Your task to perform on an android device: open app "Upside-Cash back on gas & food" (install if not already installed), go to login, and select forgot password Image 0: 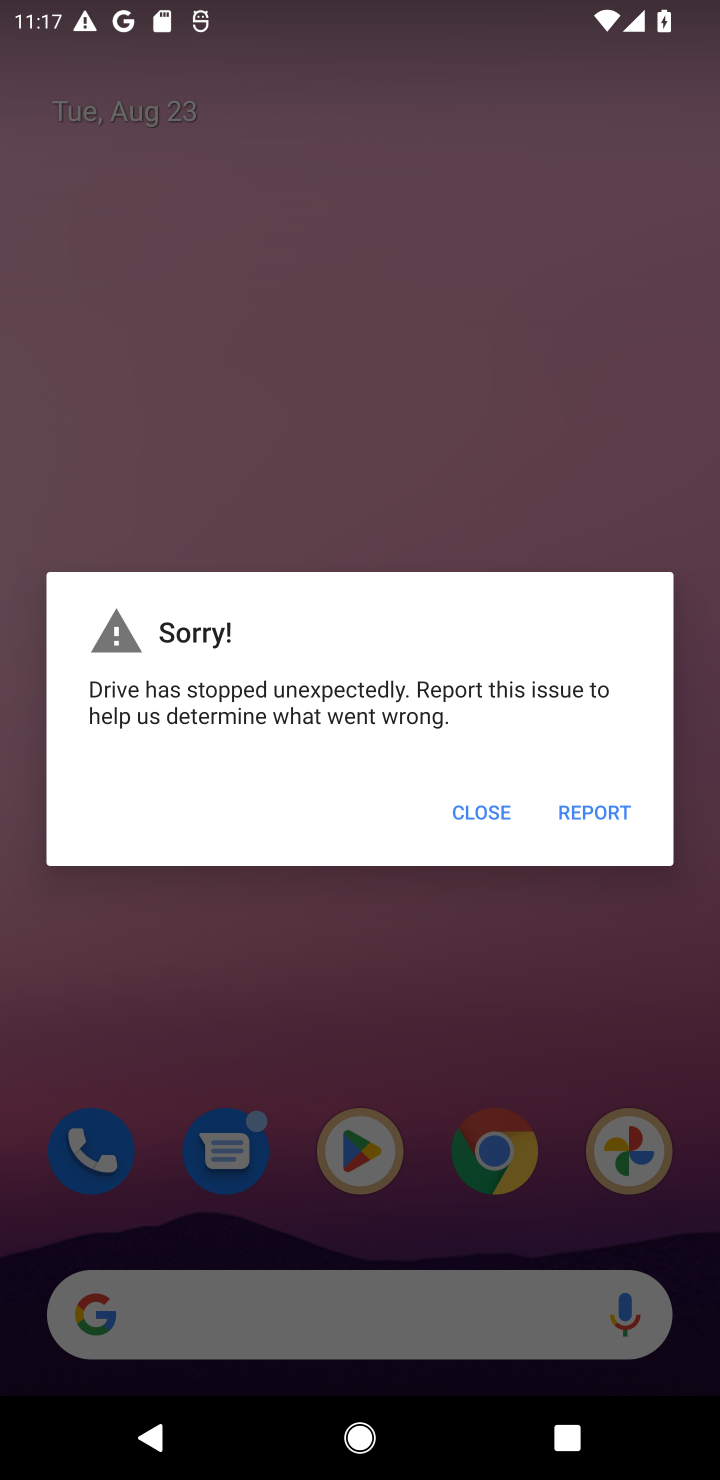
Step 0: click (457, 808)
Your task to perform on an android device: open app "Upside-Cash back on gas & food" (install if not already installed), go to login, and select forgot password Image 1: 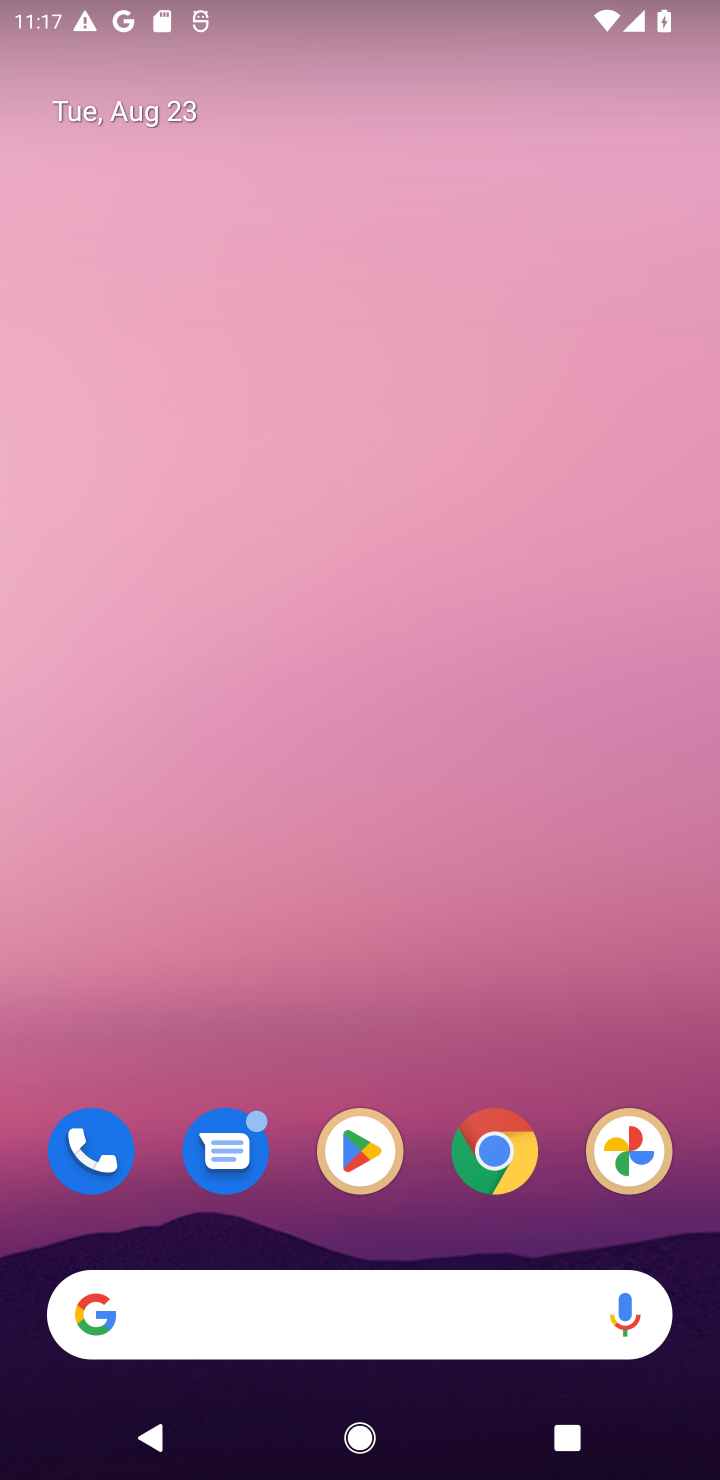
Step 1: click (356, 1171)
Your task to perform on an android device: open app "Upside-Cash back on gas & food" (install if not already installed), go to login, and select forgot password Image 2: 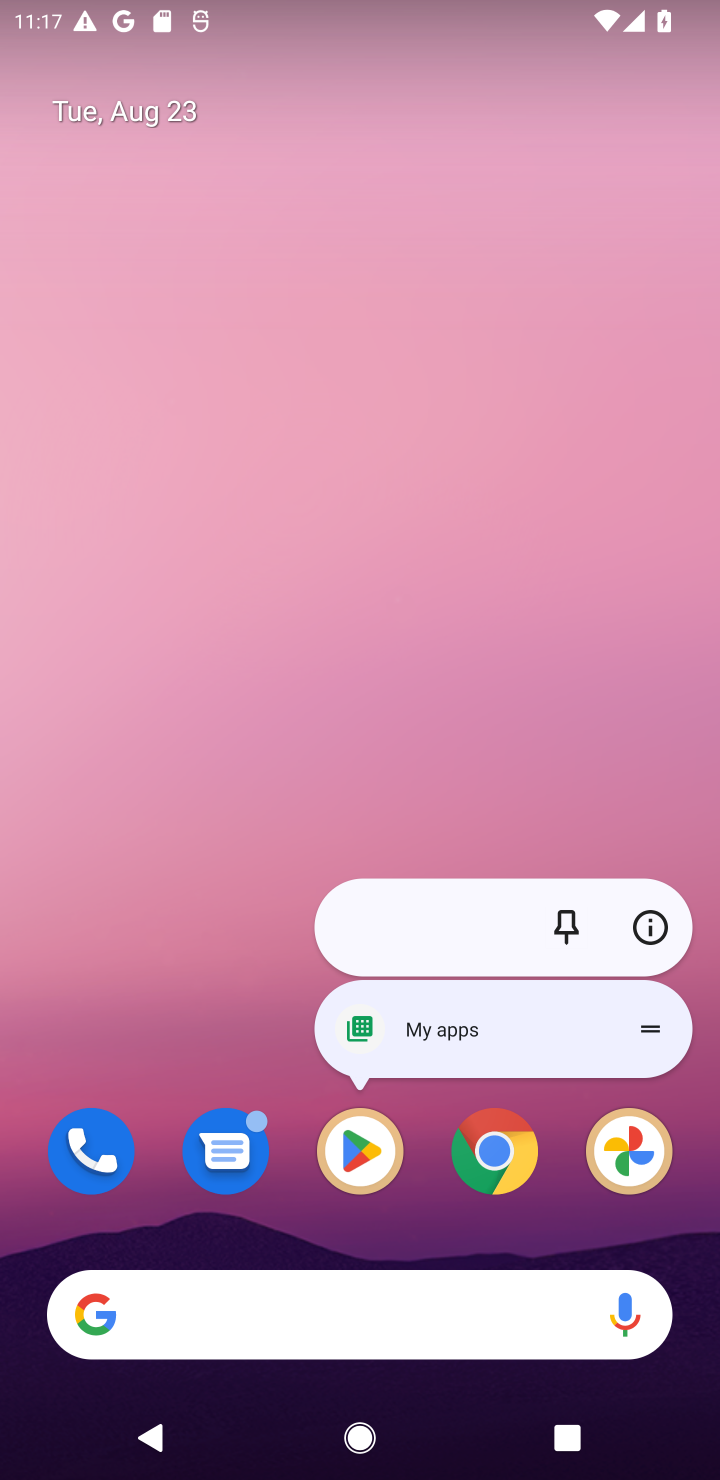
Step 2: click (333, 1171)
Your task to perform on an android device: open app "Upside-Cash back on gas & food" (install if not already installed), go to login, and select forgot password Image 3: 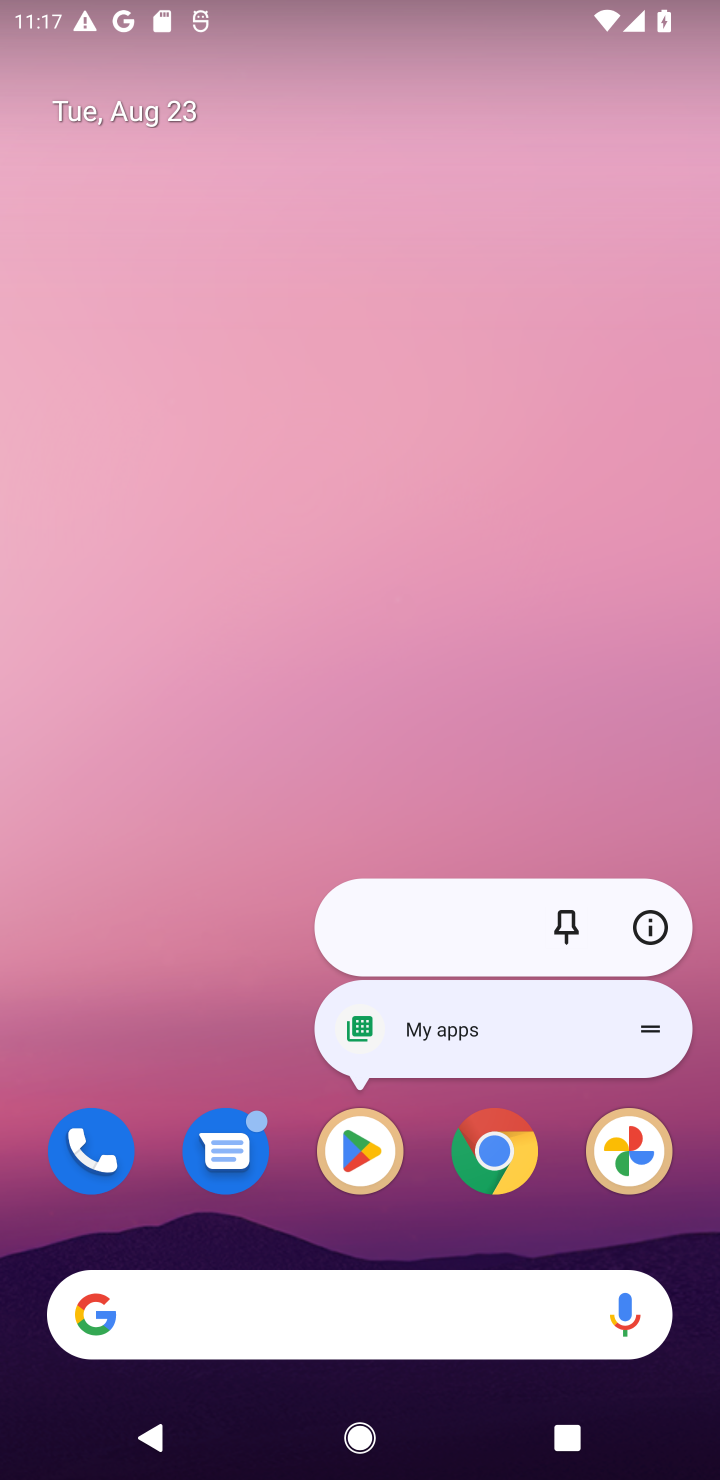
Step 3: click (370, 1171)
Your task to perform on an android device: open app "Upside-Cash back on gas & food" (install if not already installed), go to login, and select forgot password Image 4: 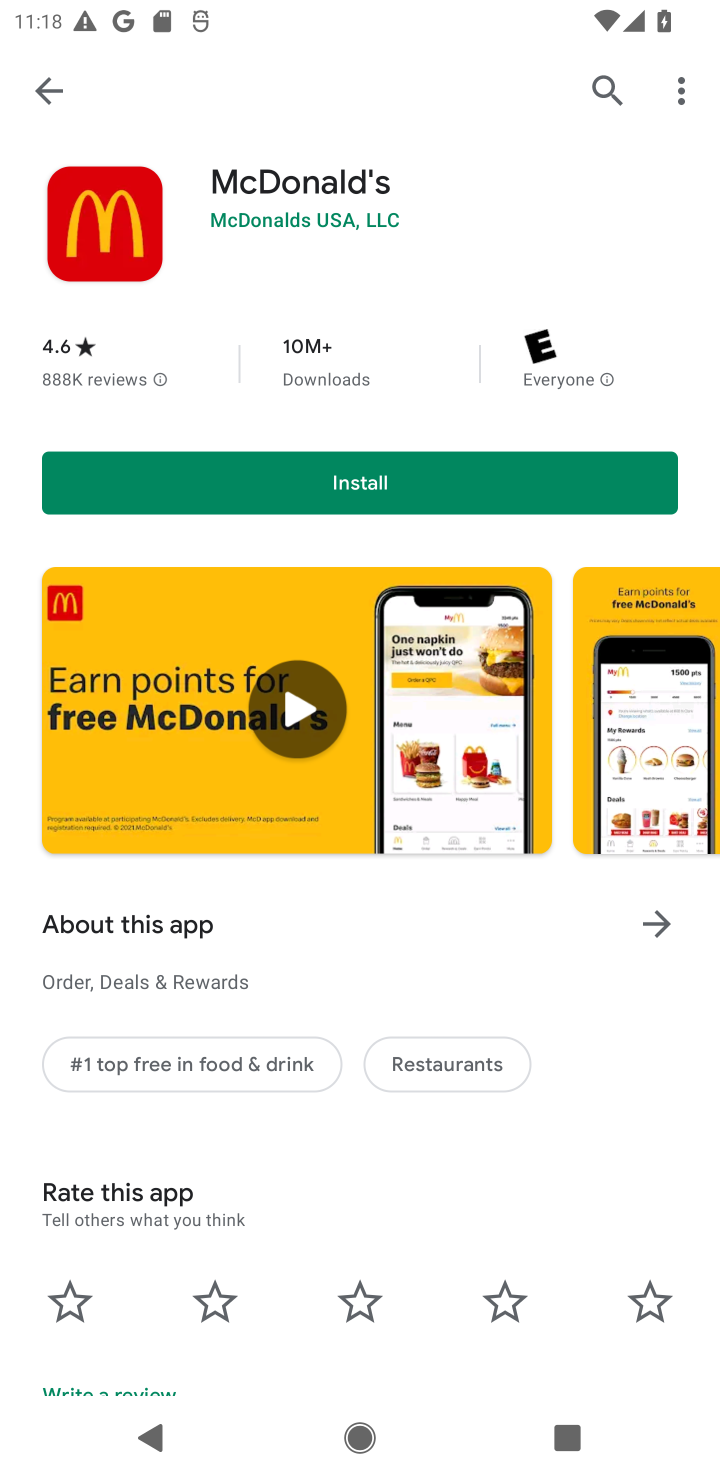
Step 4: click (618, 79)
Your task to perform on an android device: open app "Upside-Cash back on gas & food" (install if not already installed), go to login, and select forgot password Image 5: 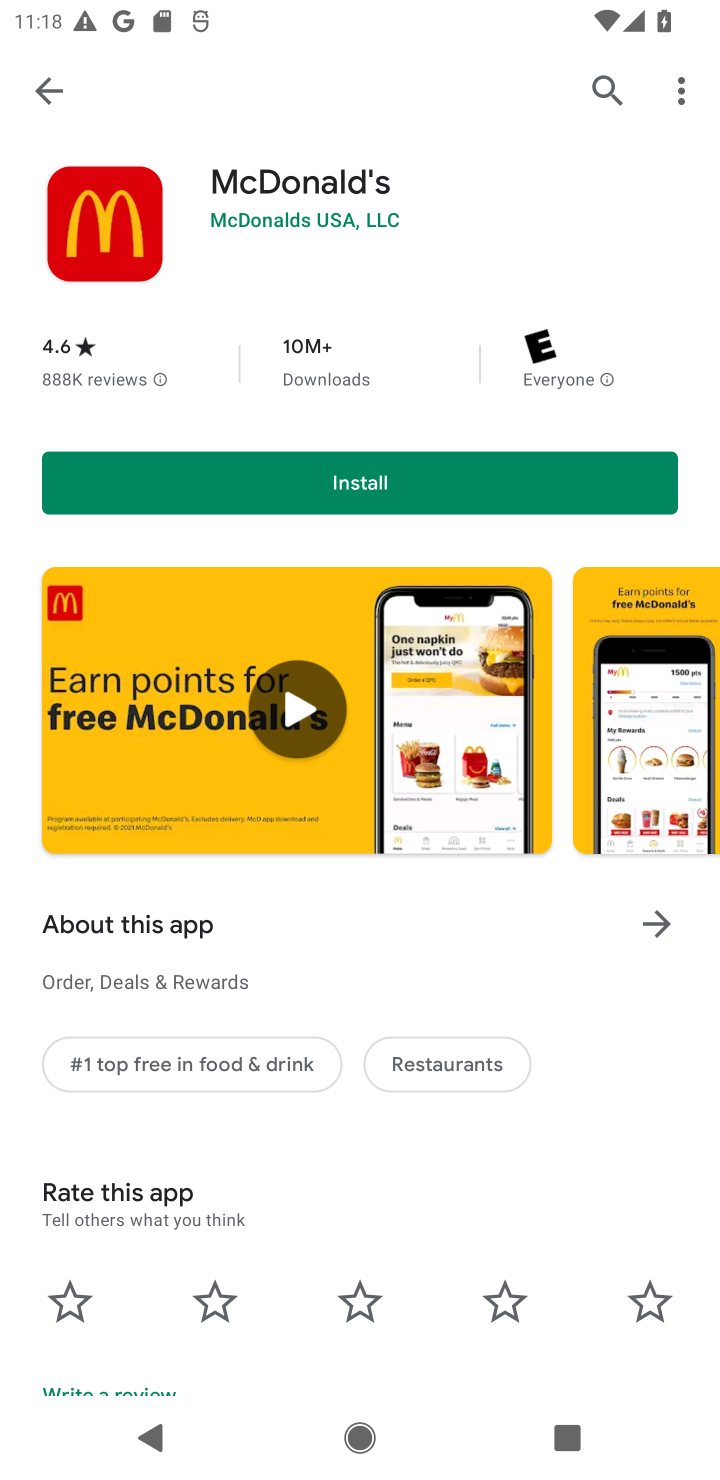
Step 5: click (606, 88)
Your task to perform on an android device: open app "Upside-Cash back on gas & food" (install if not already installed), go to login, and select forgot password Image 6: 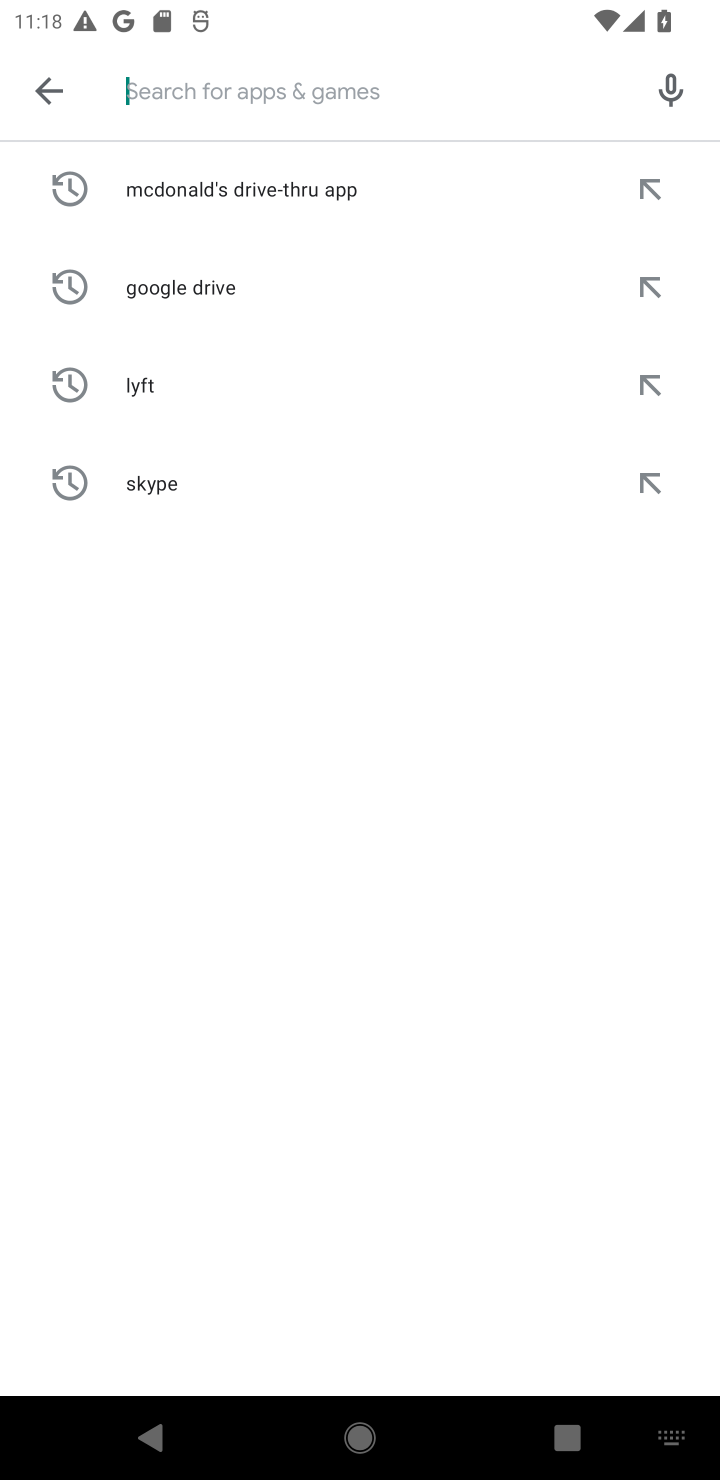
Step 6: type "Upside-Cash back on gas & food"
Your task to perform on an android device: open app "Upside-Cash back on gas & food" (install if not already installed), go to login, and select forgot password Image 7: 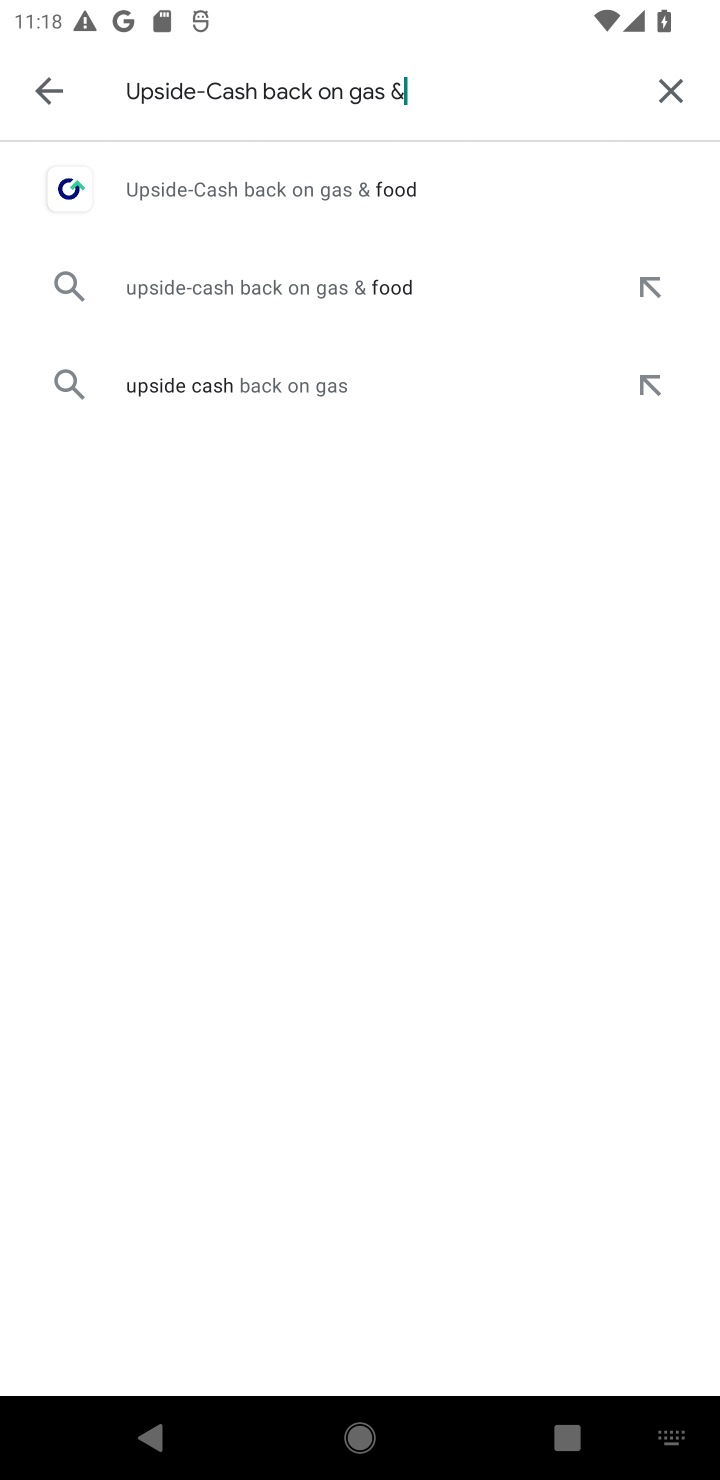
Step 7: type ""
Your task to perform on an android device: open app "Upside-Cash back on gas & food" (install if not already installed), go to login, and select forgot password Image 8: 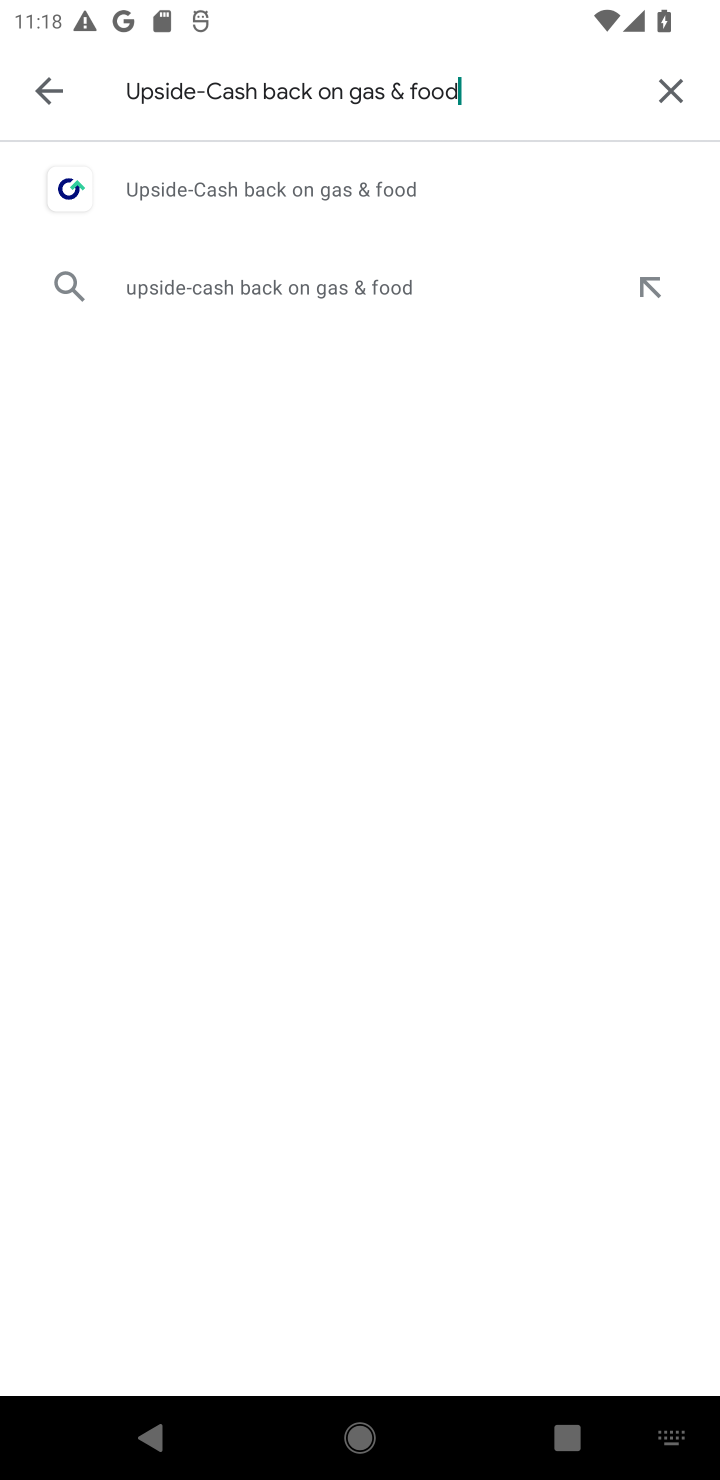
Step 8: click (387, 186)
Your task to perform on an android device: open app "Upside-Cash back on gas & food" (install if not already installed), go to login, and select forgot password Image 9: 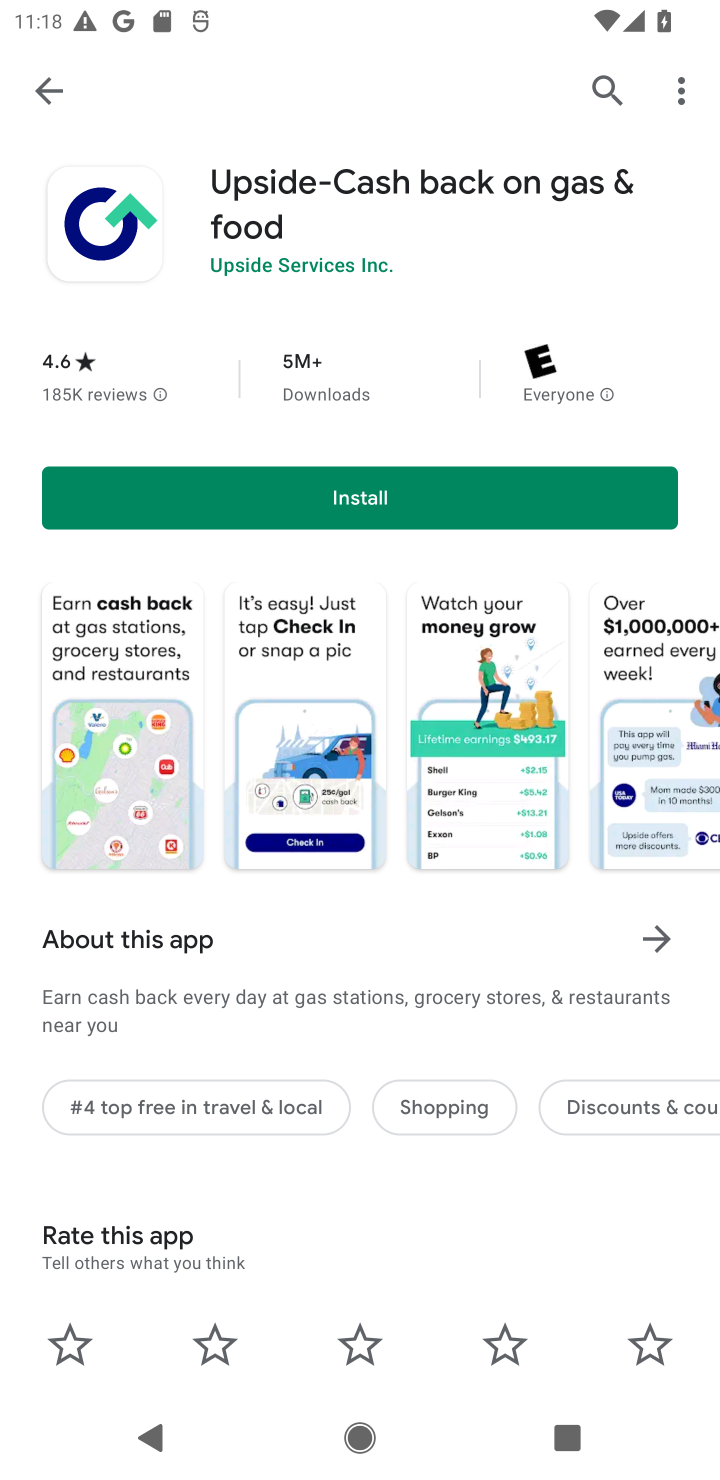
Step 9: click (326, 506)
Your task to perform on an android device: open app "Upside-Cash back on gas & food" (install if not already installed), go to login, and select forgot password Image 10: 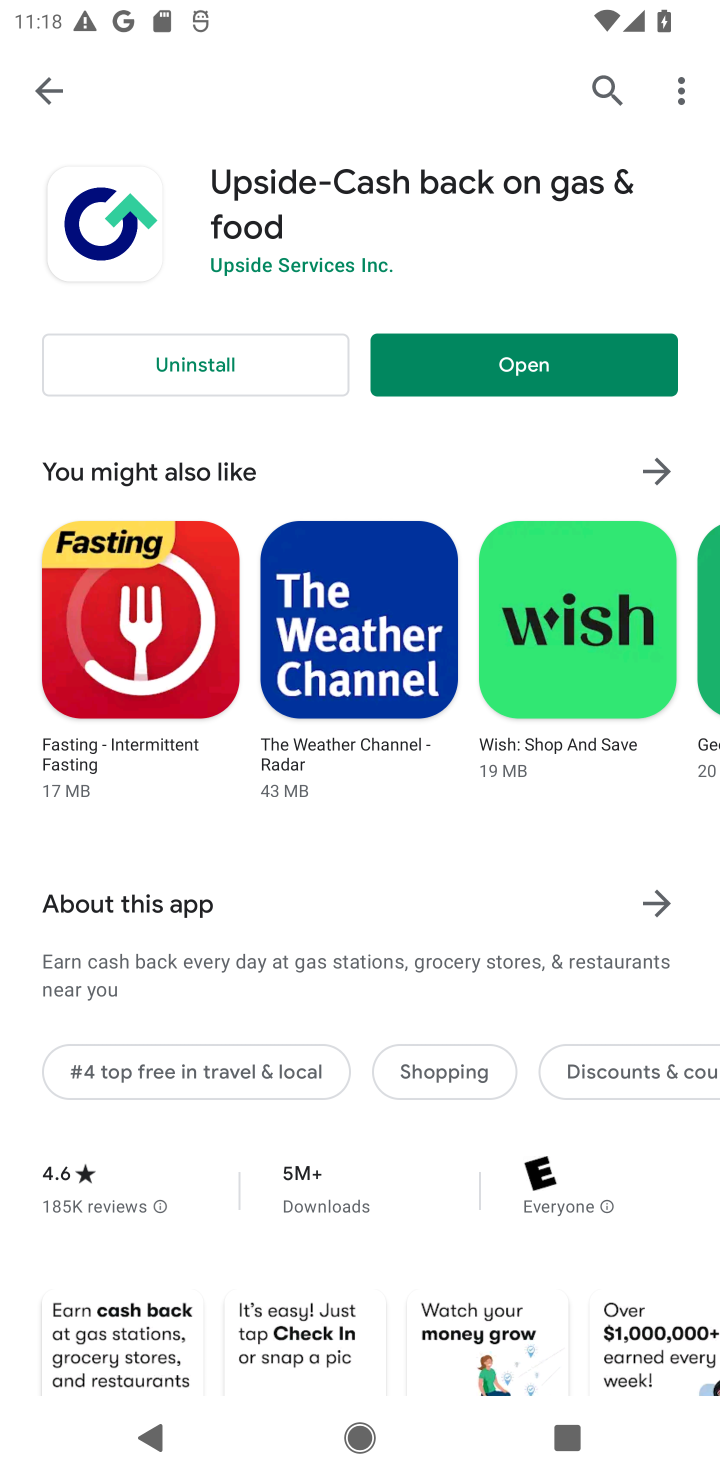
Step 10: click (415, 367)
Your task to perform on an android device: open app "Upside-Cash back on gas & food" (install if not already installed), go to login, and select forgot password Image 11: 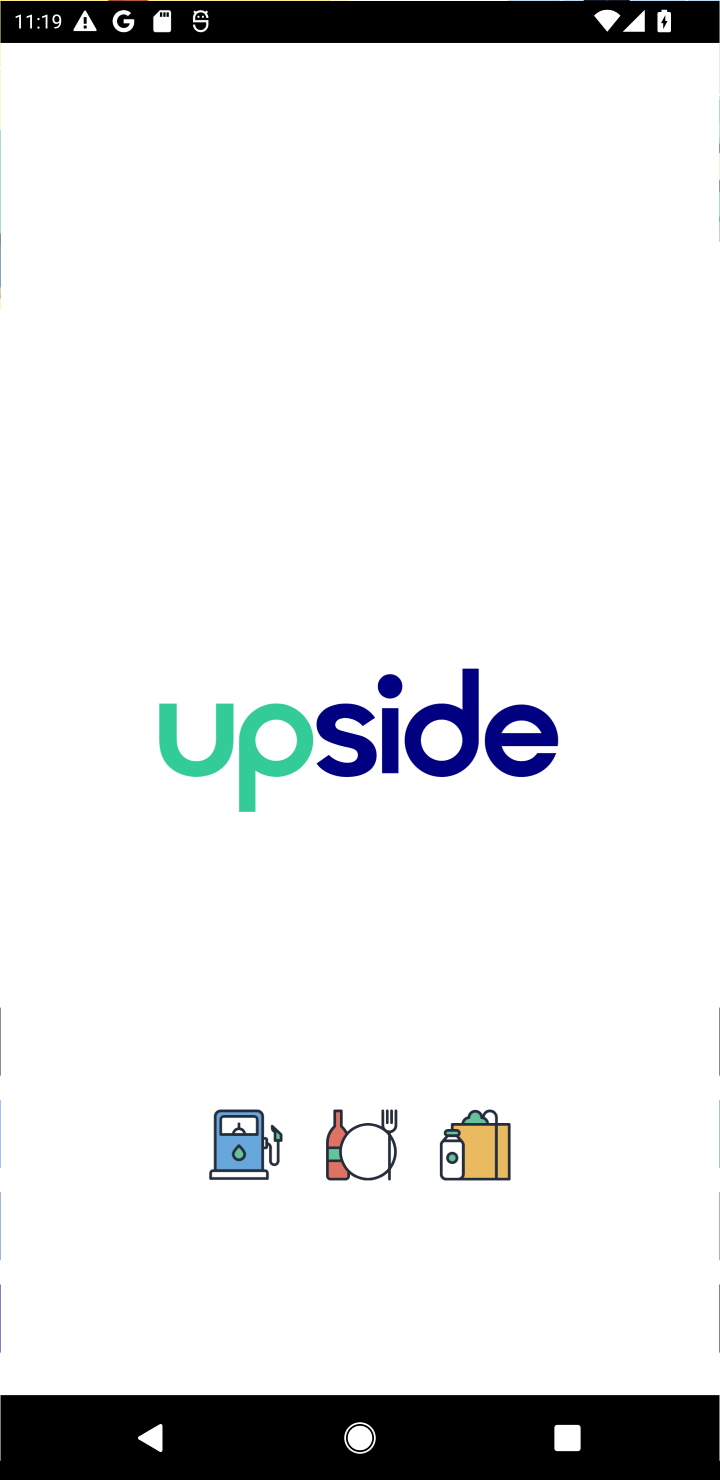
Step 11: task complete